Your task to perform on an android device: check out phone information Image 0: 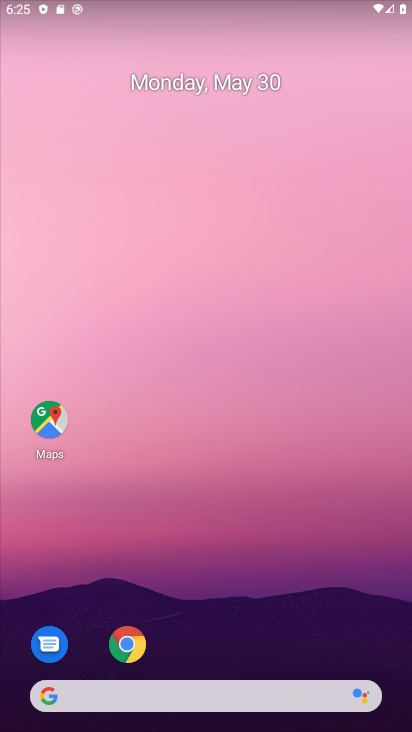
Step 0: drag from (207, 643) to (229, 47)
Your task to perform on an android device: check out phone information Image 1: 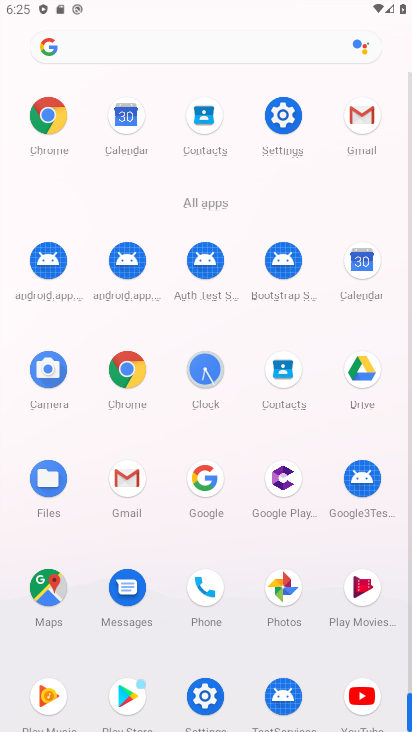
Step 1: click (281, 122)
Your task to perform on an android device: check out phone information Image 2: 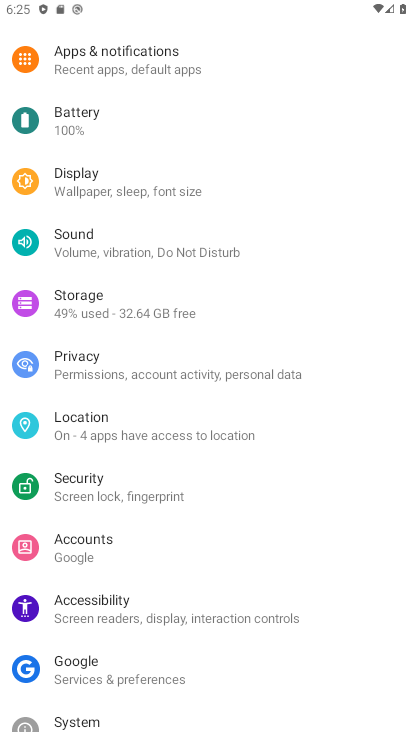
Step 2: drag from (131, 674) to (173, 318)
Your task to perform on an android device: check out phone information Image 3: 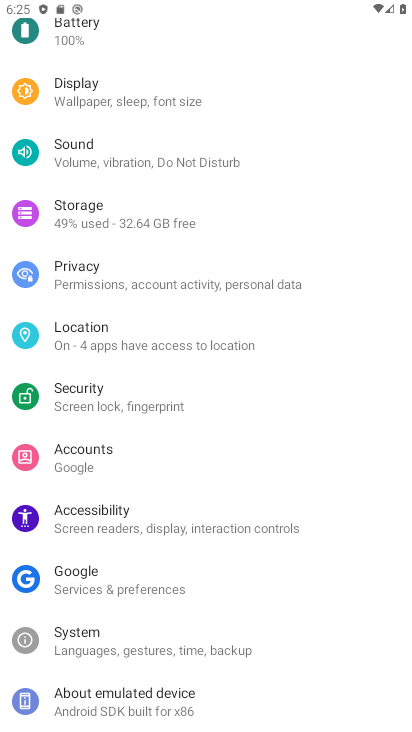
Step 3: click (90, 702)
Your task to perform on an android device: check out phone information Image 4: 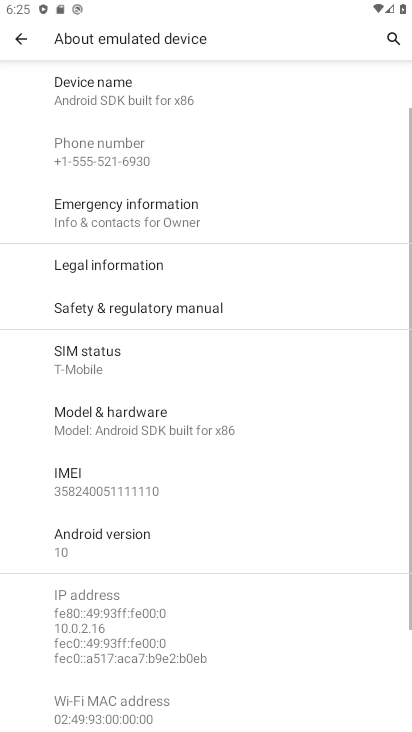
Step 4: task complete